Your task to perform on an android device: Open Reddit.com Image 0: 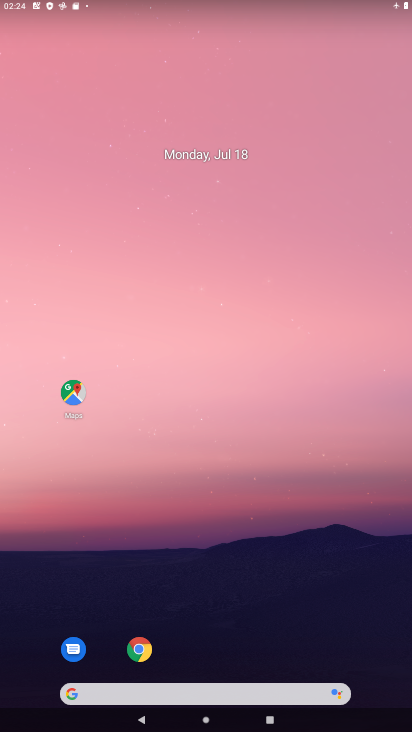
Step 0: click (207, 695)
Your task to perform on an android device: Open Reddit.com Image 1: 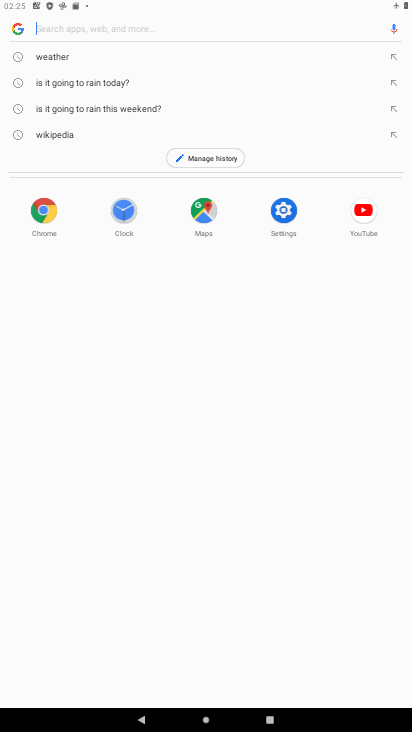
Step 1: type "reddit.com"
Your task to perform on an android device: Open Reddit.com Image 2: 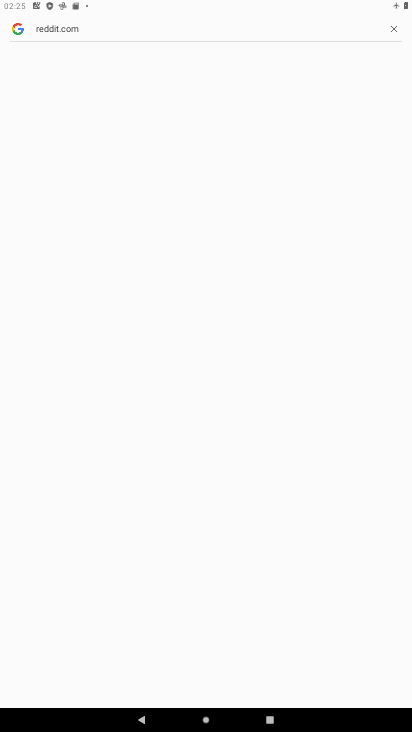
Step 2: task complete